Your task to perform on an android device: turn on improve location accuracy Image 0: 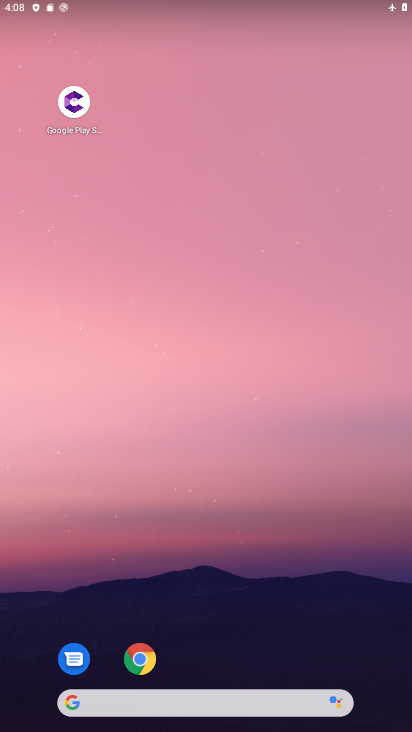
Step 0: drag from (373, 628) to (383, 133)
Your task to perform on an android device: turn on improve location accuracy Image 1: 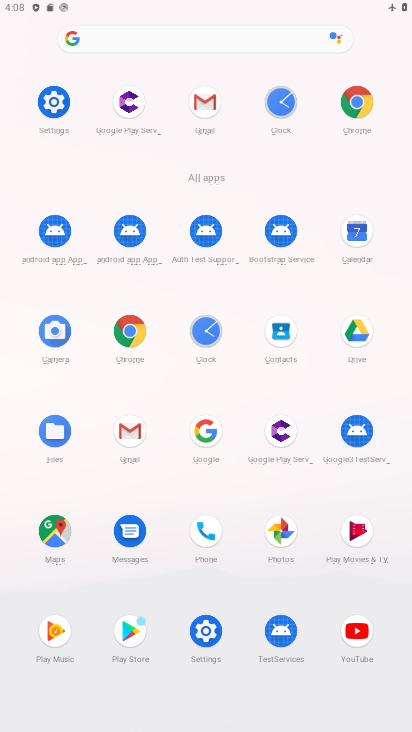
Step 1: click (208, 631)
Your task to perform on an android device: turn on improve location accuracy Image 2: 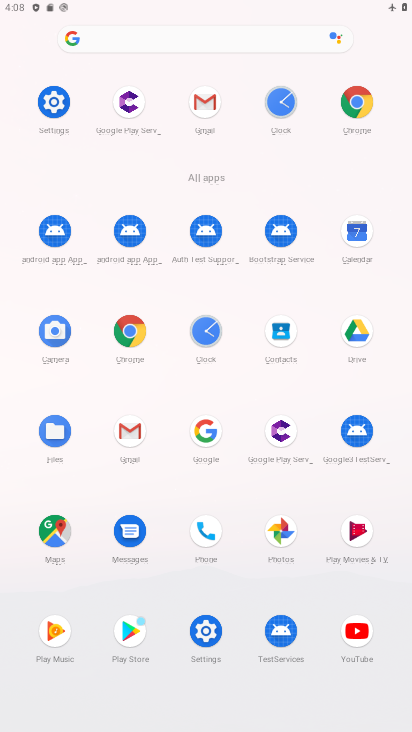
Step 2: click (208, 631)
Your task to perform on an android device: turn on improve location accuracy Image 3: 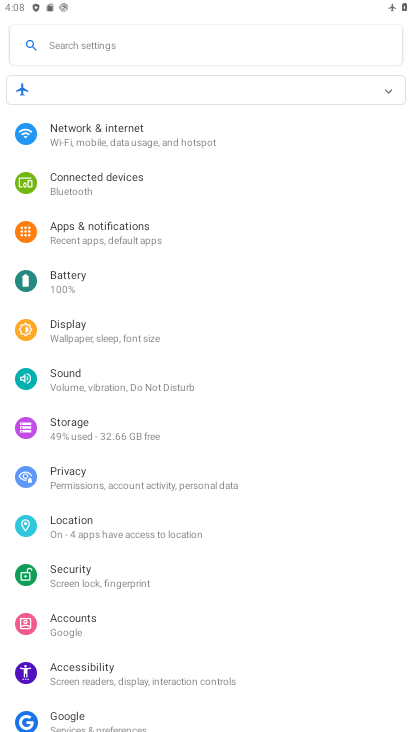
Step 3: click (201, 522)
Your task to perform on an android device: turn on improve location accuracy Image 4: 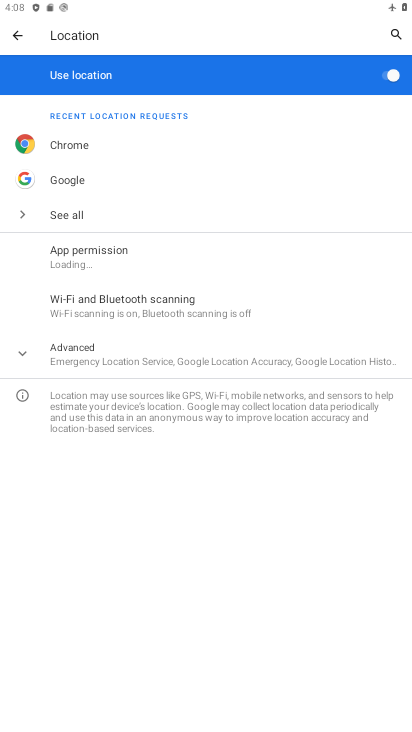
Step 4: click (246, 360)
Your task to perform on an android device: turn on improve location accuracy Image 5: 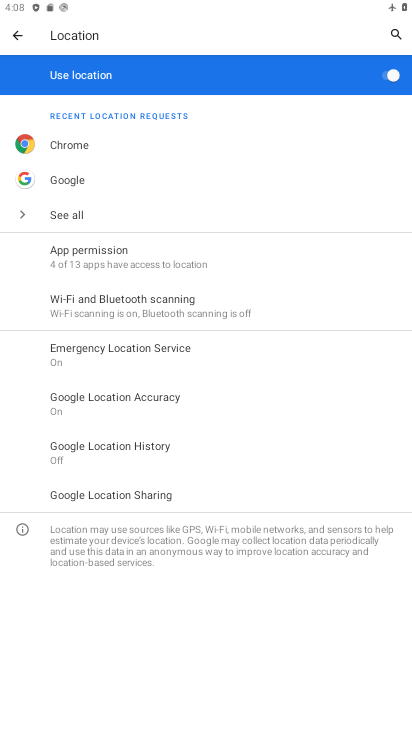
Step 5: click (162, 402)
Your task to perform on an android device: turn on improve location accuracy Image 6: 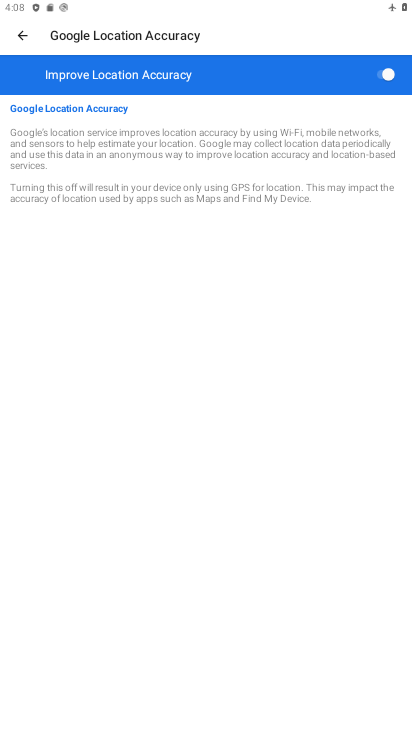
Step 6: task complete